Your task to perform on an android device: Open the web browser Image 0: 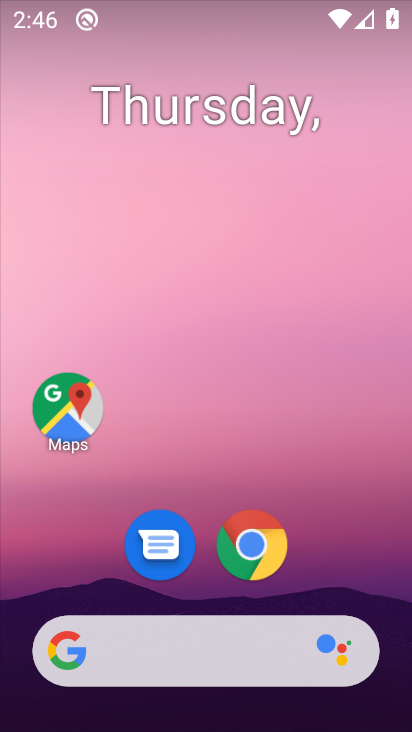
Step 0: click (248, 556)
Your task to perform on an android device: Open the web browser Image 1: 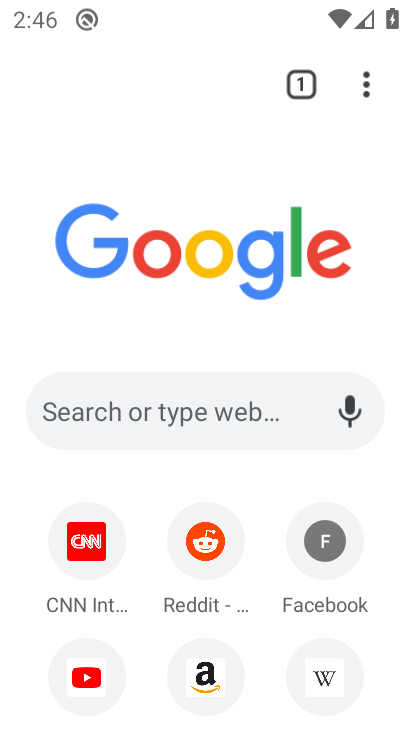
Step 1: task complete